Your task to perform on an android device: change notification settings in the gmail app Image 0: 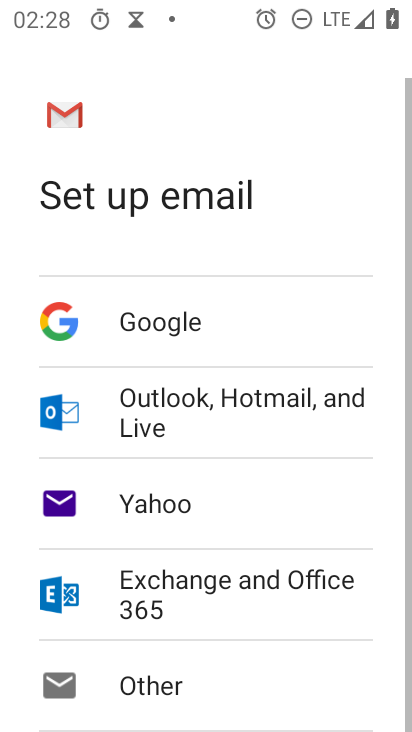
Step 0: press home button
Your task to perform on an android device: change notification settings in the gmail app Image 1: 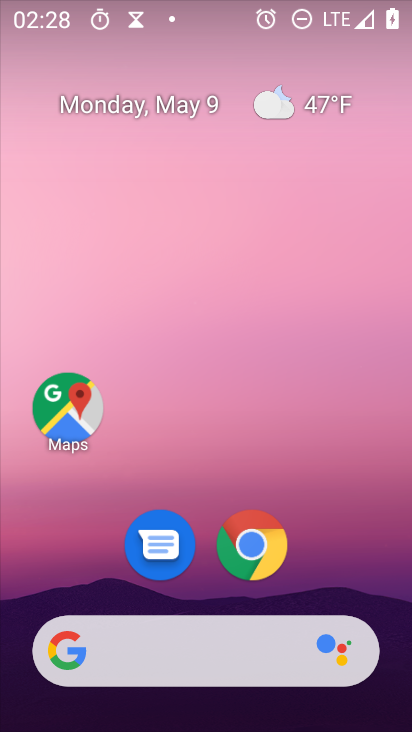
Step 1: drag from (338, 578) to (367, 9)
Your task to perform on an android device: change notification settings in the gmail app Image 2: 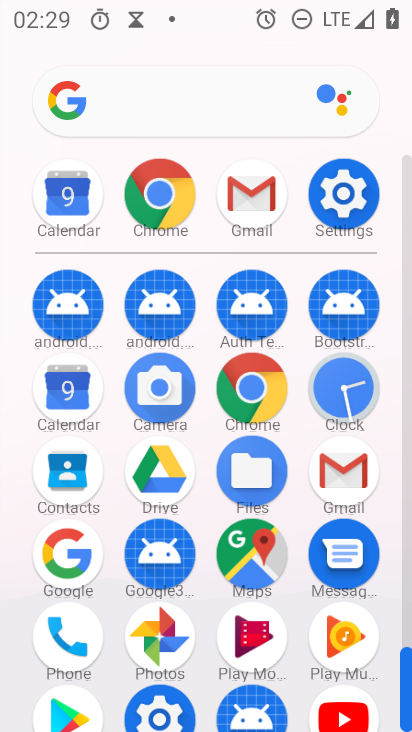
Step 2: click (359, 468)
Your task to perform on an android device: change notification settings in the gmail app Image 3: 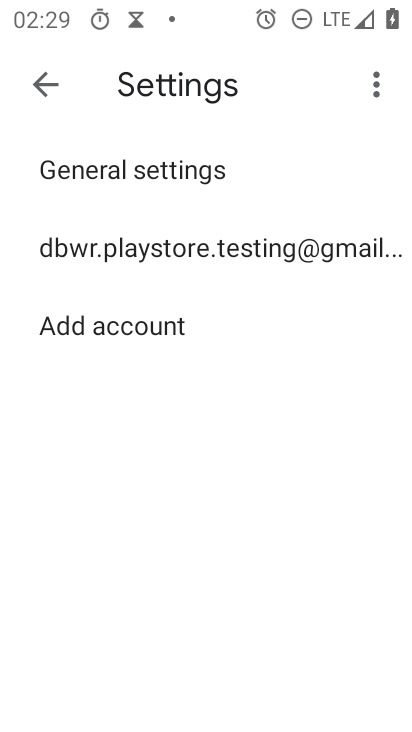
Step 3: click (319, 249)
Your task to perform on an android device: change notification settings in the gmail app Image 4: 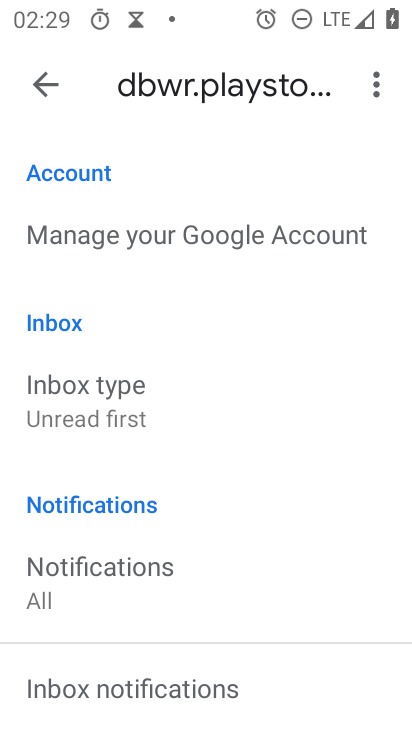
Step 4: drag from (221, 664) to (275, 141)
Your task to perform on an android device: change notification settings in the gmail app Image 5: 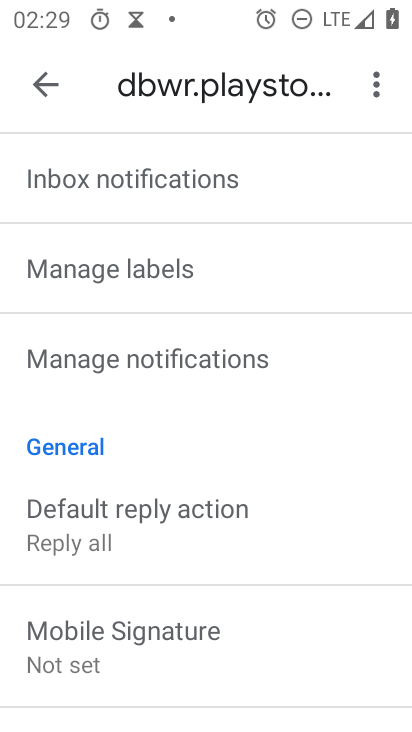
Step 5: click (264, 339)
Your task to perform on an android device: change notification settings in the gmail app Image 6: 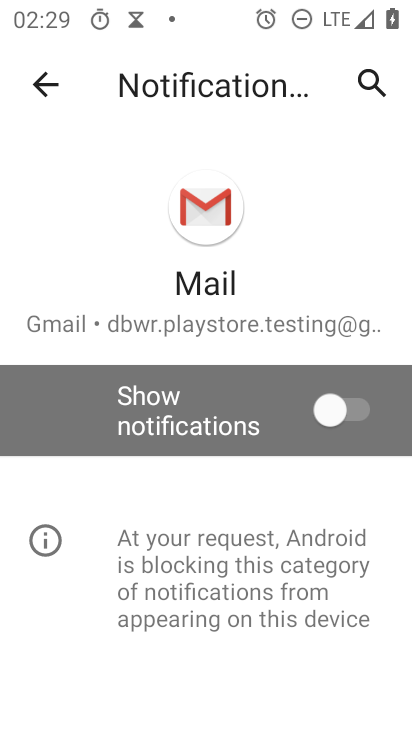
Step 6: click (361, 405)
Your task to perform on an android device: change notification settings in the gmail app Image 7: 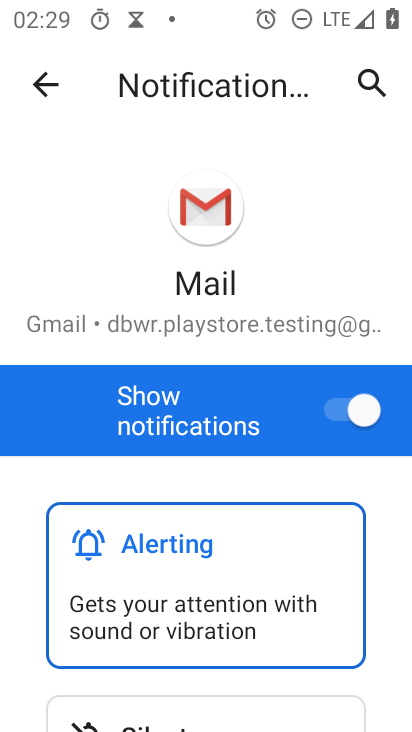
Step 7: task complete